Your task to perform on an android device: turn pop-ups off in chrome Image 0: 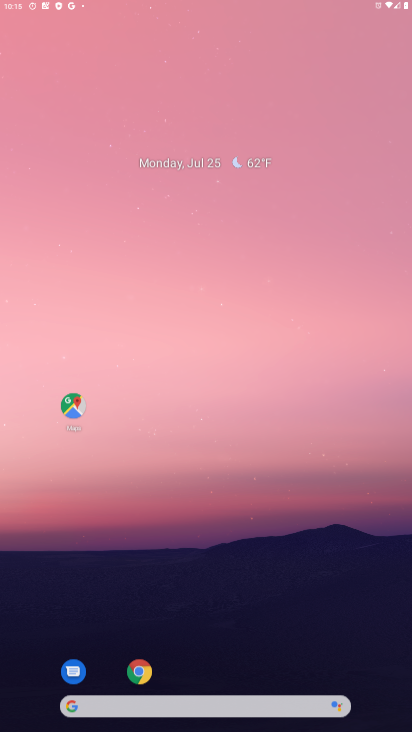
Step 0: drag from (226, 52) to (336, 33)
Your task to perform on an android device: turn pop-ups off in chrome Image 1: 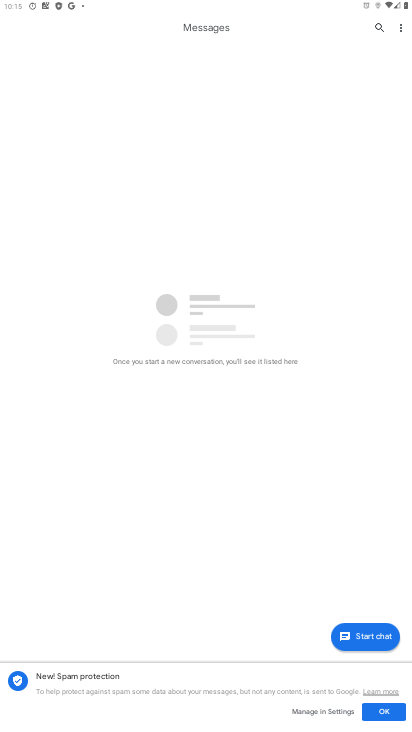
Step 1: press home button
Your task to perform on an android device: turn pop-ups off in chrome Image 2: 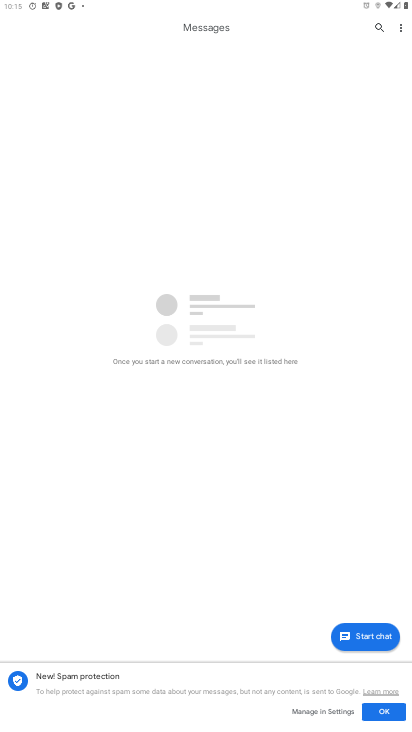
Step 2: drag from (189, 572) to (229, 29)
Your task to perform on an android device: turn pop-ups off in chrome Image 3: 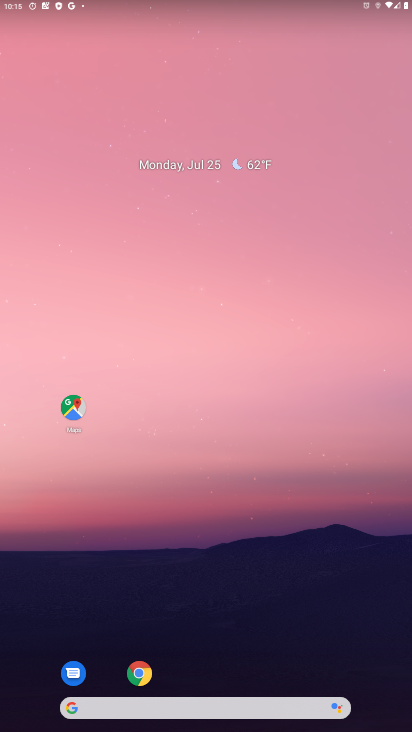
Step 3: drag from (191, 645) to (281, 64)
Your task to perform on an android device: turn pop-ups off in chrome Image 4: 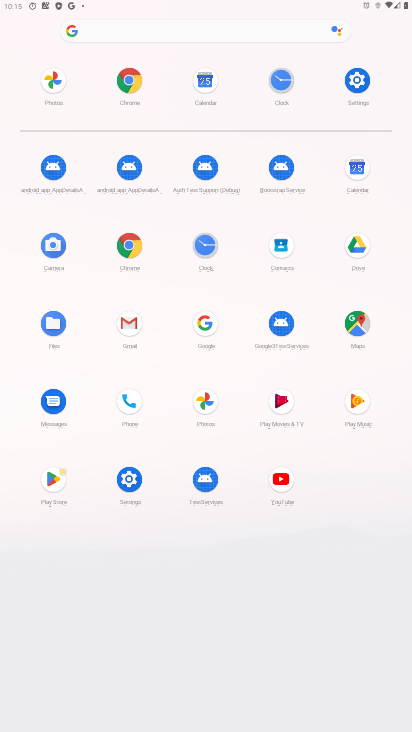
Step 4: click (123, 240)
Your task to perform on an android device: turn pop-ups off in chrome Image 5: 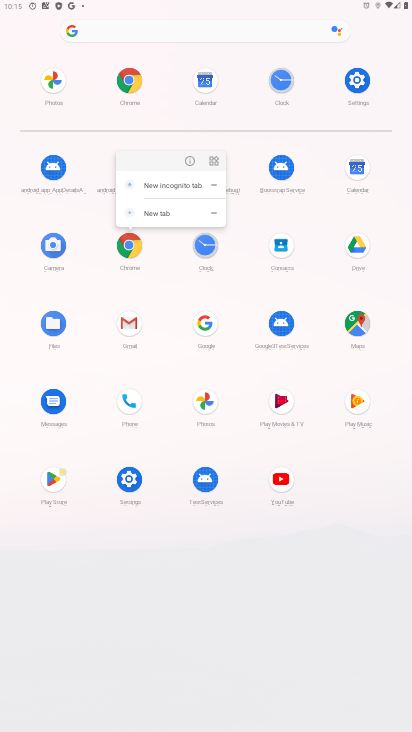
Step 5: click (183, 157)
Your task to perform on an android device: turn pop-ups off in chrome Image 6: 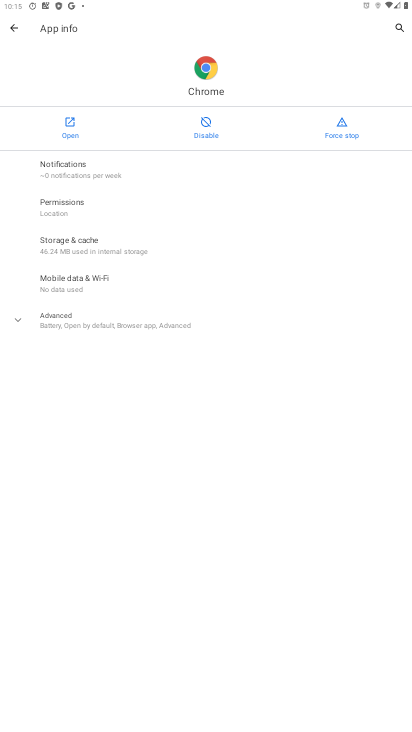
Step 6: click (66, 140)
Your task to perform on an android device: turn pop-ups off in chrome Image 7: 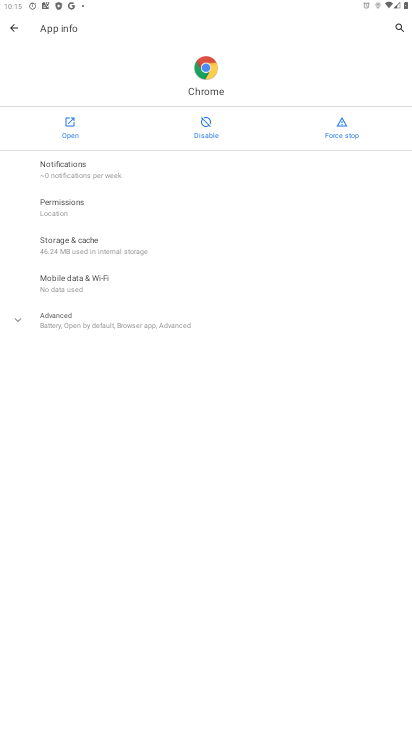
Step 7: click (66, 139)
Your task to perform on an android device: turn pop-ups off in chrome Image 8: 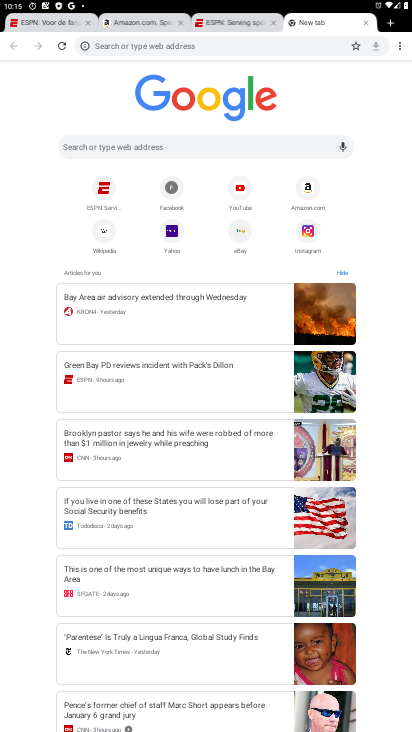
Step 8: drag from (403, 44) to (315, 210)
Your task to perform on an android device: turn pop-ups off in chrome Image 9: 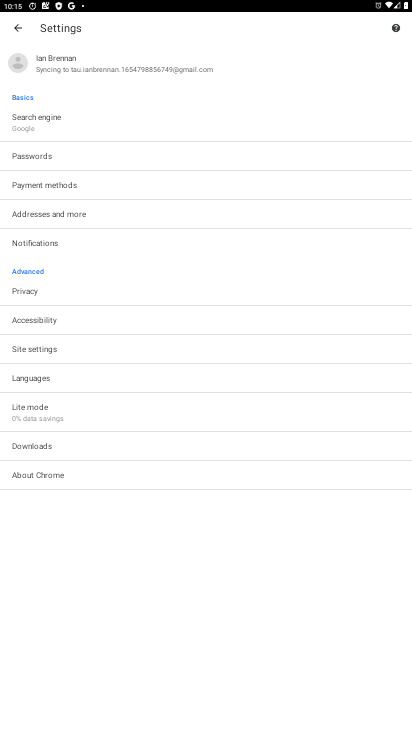
Step 9: click (57, 355)
Your task to perform on an android device: turn pop-ups off in chrome Image 10: 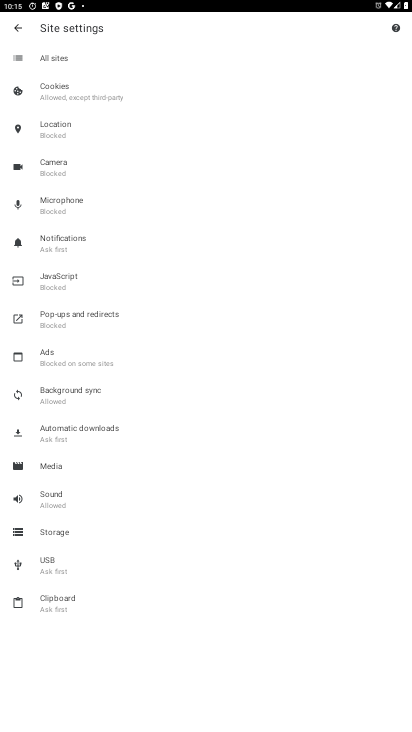
Step 10: drag from (174, 498) to (230, 118)
Your task to perform on an android device: turn pop-ups off in chrome Image 11: 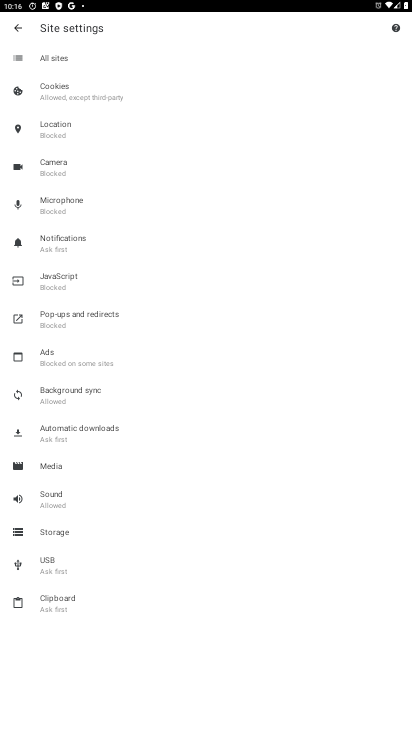
Step 11: click (67, 327)
Your task to perform on an android device: turn pop-ups off in chrome Image 12: 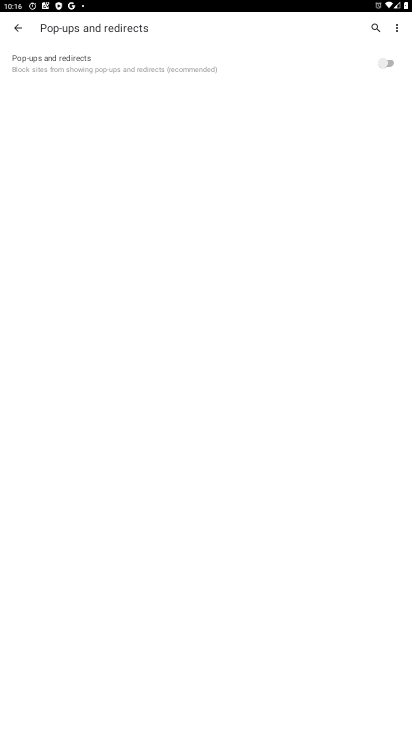
Step 12: task complete